Your task to perform on an android device: empty trash in google photos Image 0: 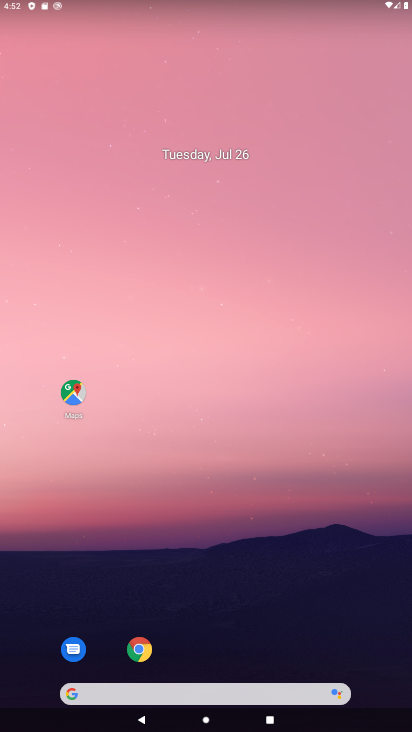
Step 0: drag from (237, 641) to (279, 0)
Your task to perform on an android device: empty trash in google photos Image 1: 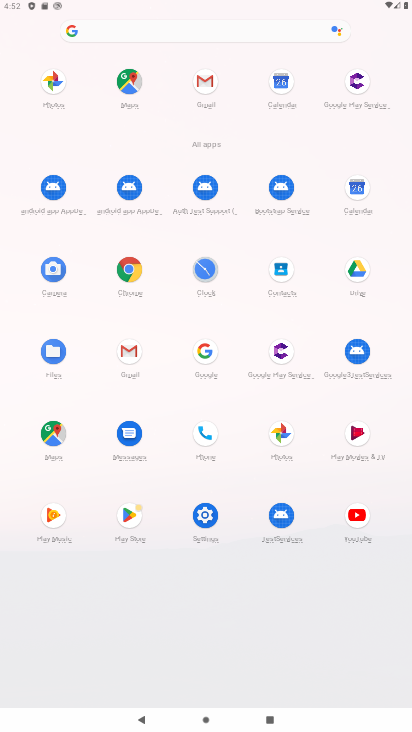
Step 1: click (49, 97)
Your task to perform on an android device: empty trash in google photos Image 2: 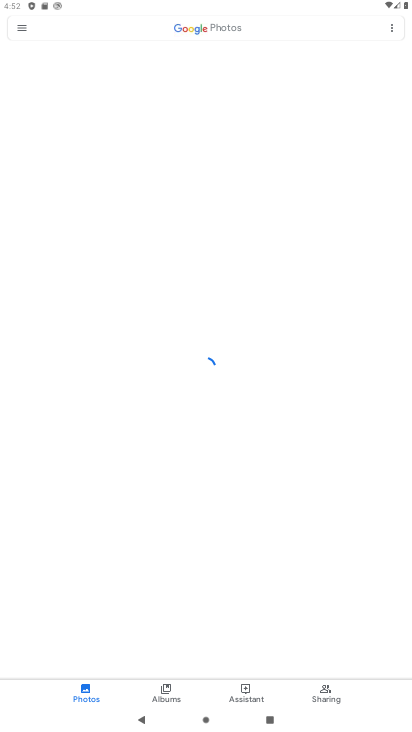
Step 2: click (22, 29)
Your task to perform on an android device: empty trash in google photos Image 3: 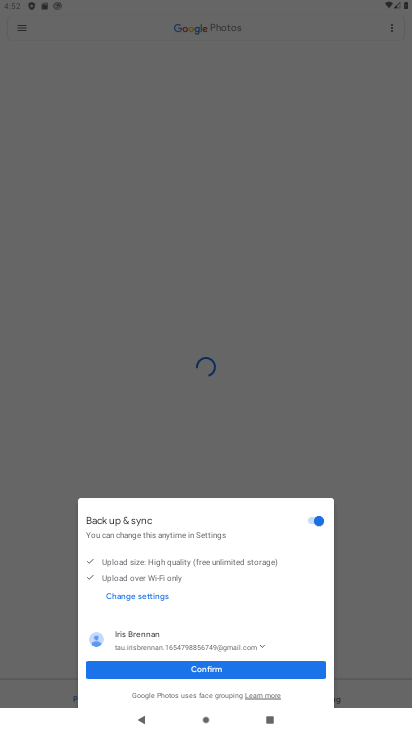
Step 3: click (232, 669)
Your task to perform on an android device: empty trash in google photos Image 4: 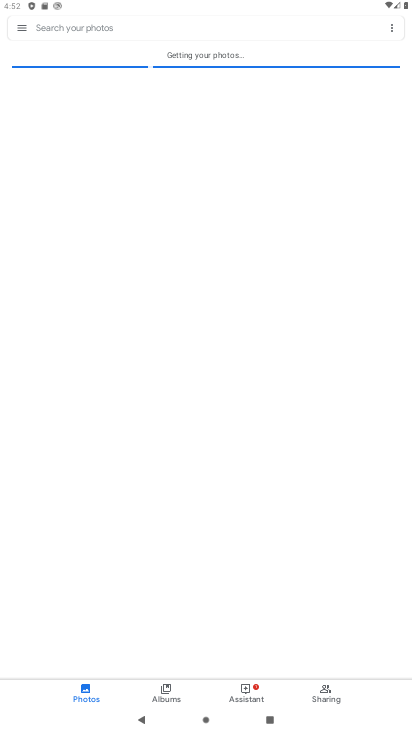
Step 4: click (16, 26)
Your task to perform on an android device: empty trash in google photos Image 5: 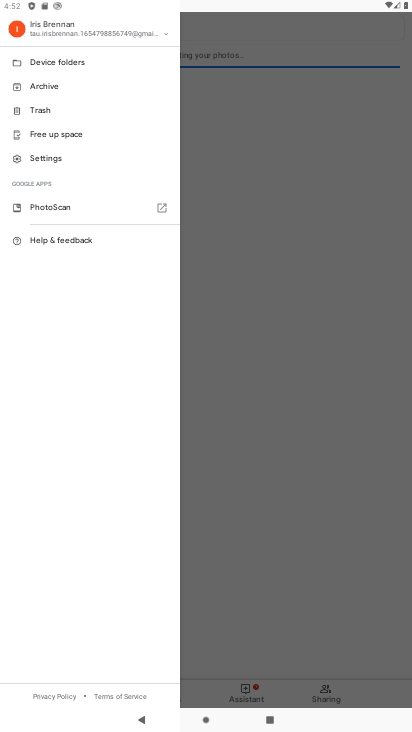
Step 5: click (42, 106)
Your task to perform on an android device: empty trash in google photos Image 6: 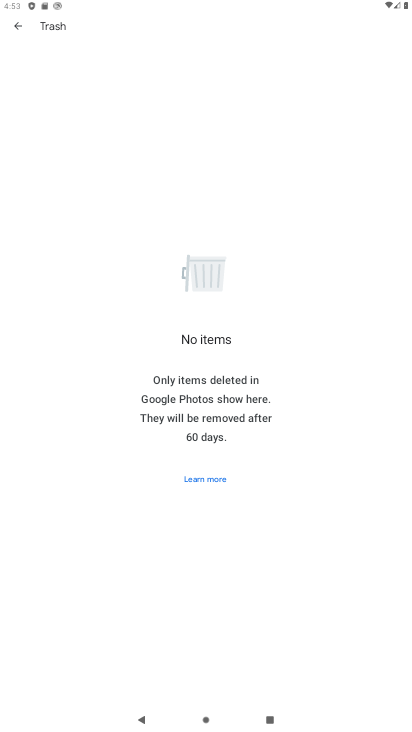
Step 6: task complete